Your task to perform on an android device: clear history in the chrome app Image 0: 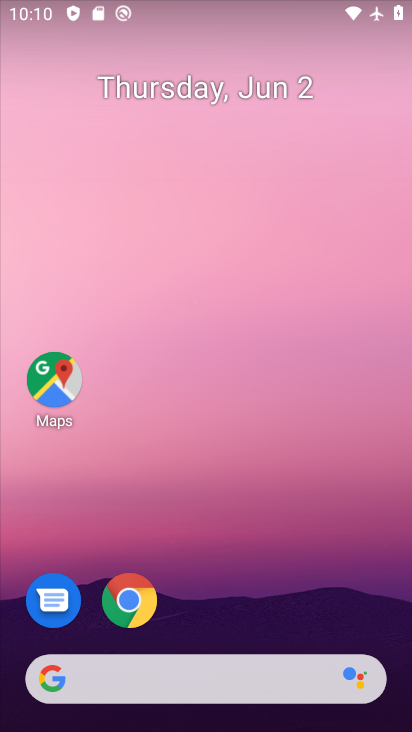
Step 0: press home button
Your task to perform on an android device: clear history in the chrome app Image 1: 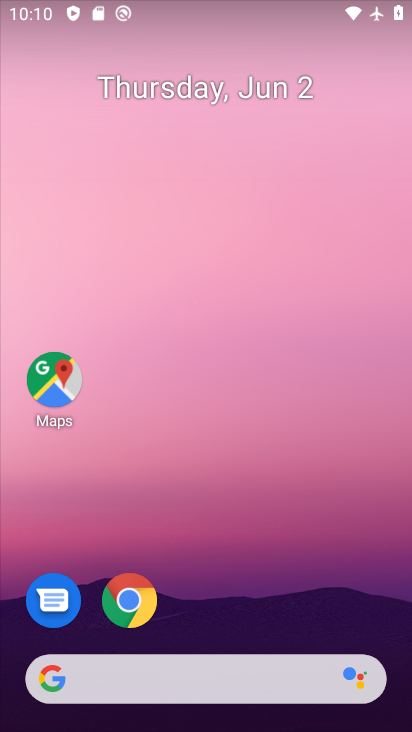
Step 1: click (140, 606)
Your task to perform on an android device: clear history in the chrome app Image 2: 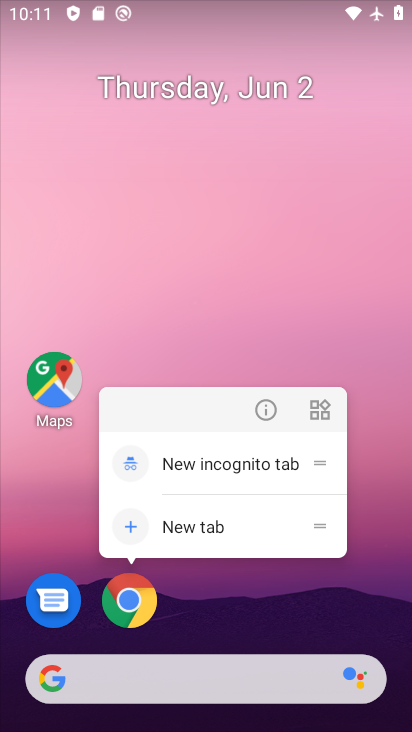
Step 2: click (139, 603)
Your task to perform on an android device: clear history in the chrome app Image 3: 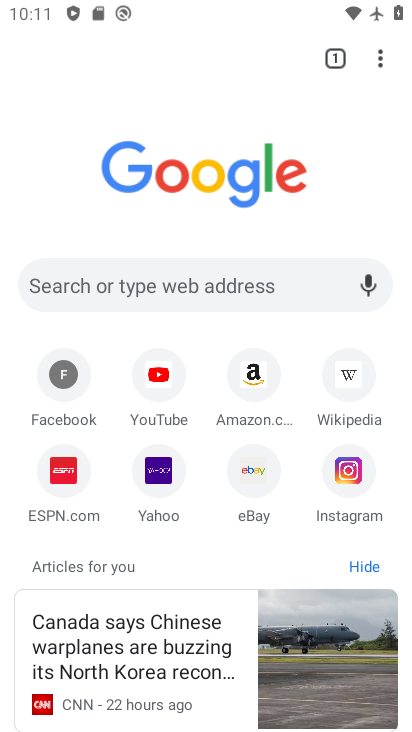
Step 3: drag from (387, 63) to (225, 327)
Your task to perform on an android device: clear history in the chrome app Image 4: 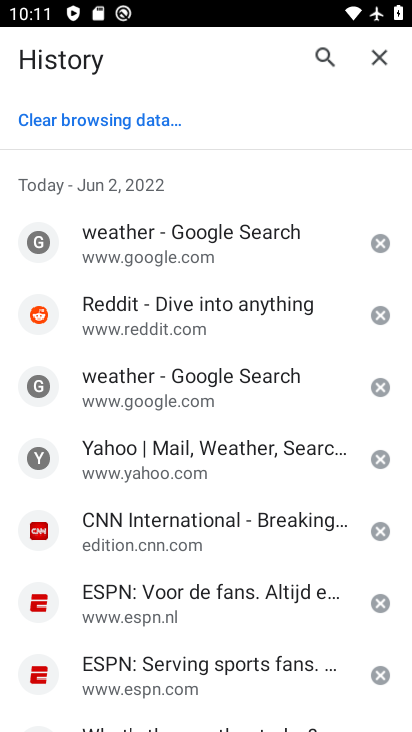
Step 4: click (118, 120)
Your task to perform on an android device: clear history in the chrome app Image 5: 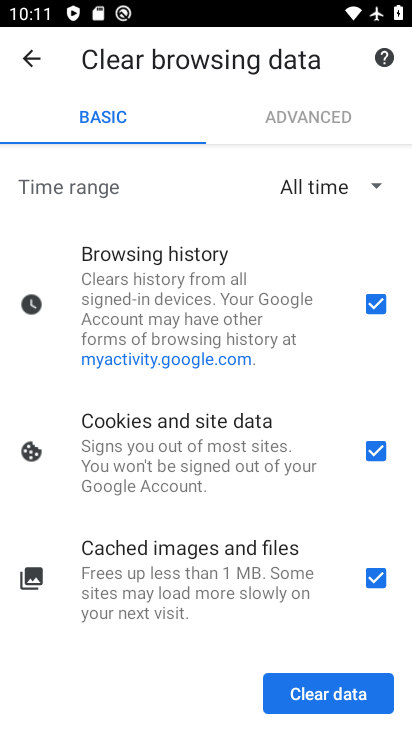
Step 5: click (324, 694)
Your task to perform on an android device: clear history in the chrome app Image 6: 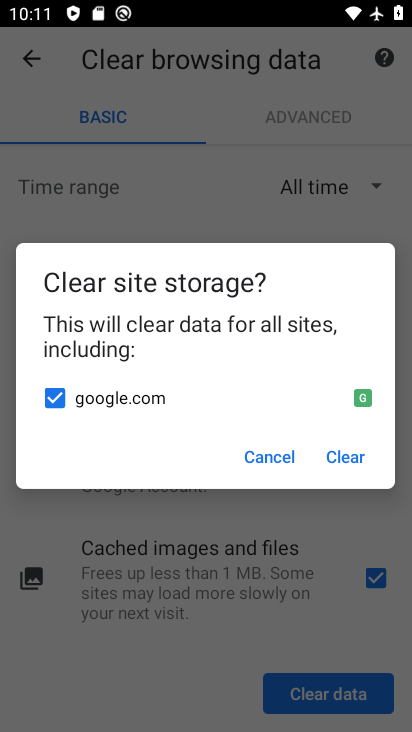
Step 6: click (343, 456)
Your task to perform on an android device: clear history in the chrome app Image 7: 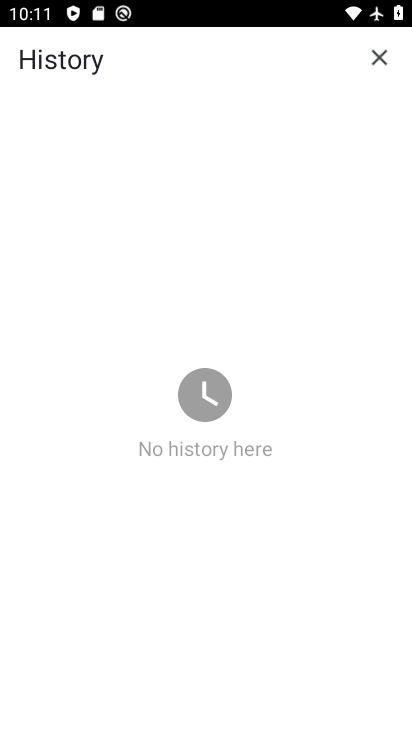
Step 7: task complete